Your task to perform on an android device: Open the web browser Image 0: 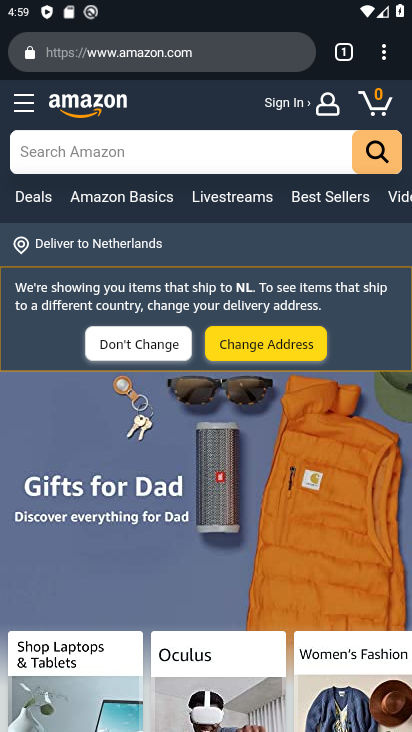
Step 0: task complete